Your task to perform on an android device: Turn on the flashlight Image 0: 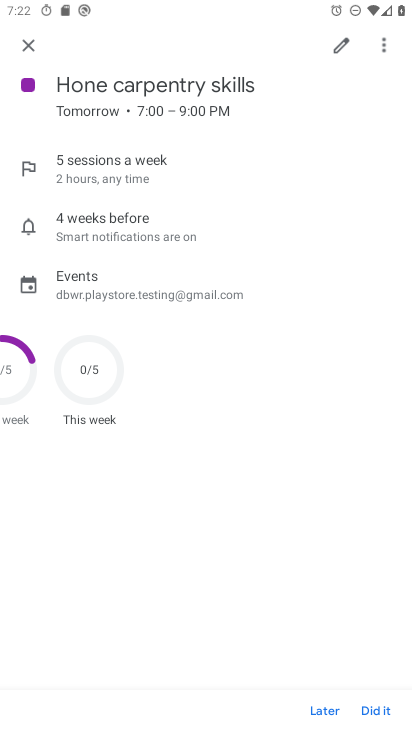
Step 0: press home button
Your task to perform on an android device: Turn on the flashlight Image 1: 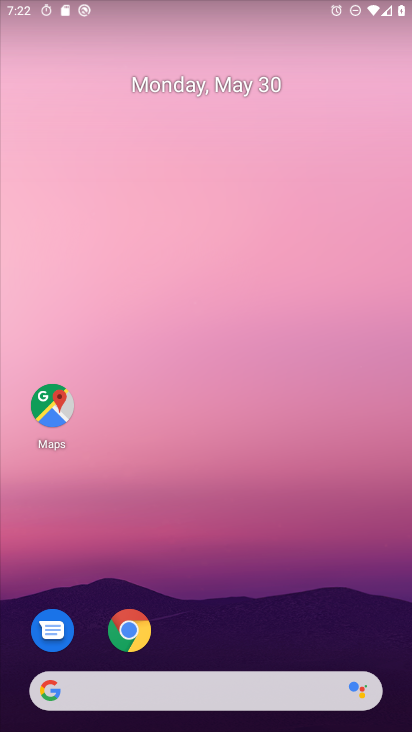
Step 1: drag from (348, 619) to (299, 46)
Your task to perform on an android device: Turn on the flashlight Image 2: 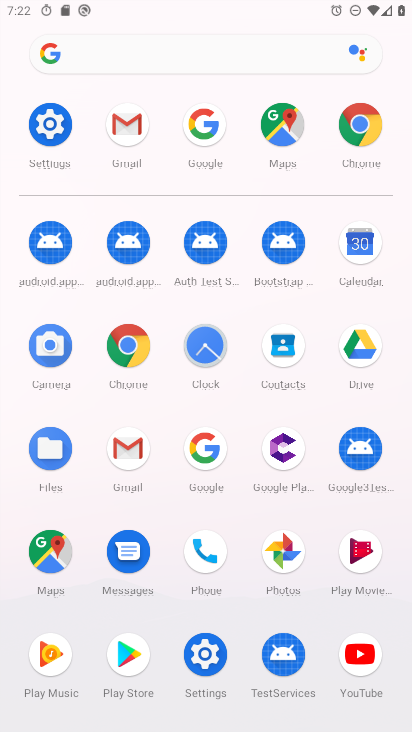
Step 2: click (29, 130)
Your task to perform on an android device: Turn on the flashlight Image 3: 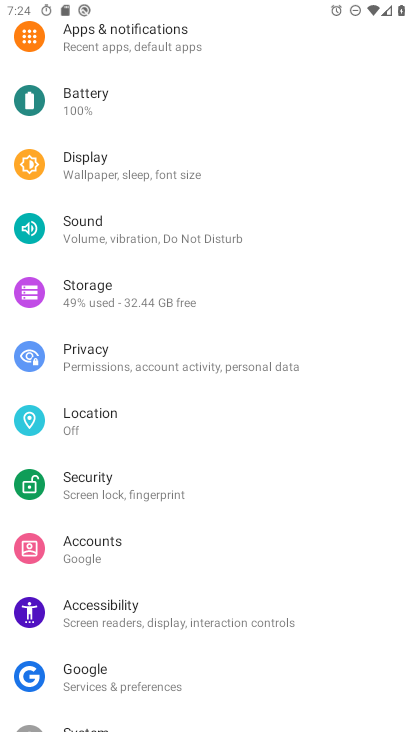
Step 3: task complete